Your task to perform on an android device: change notifications settings Image 0: 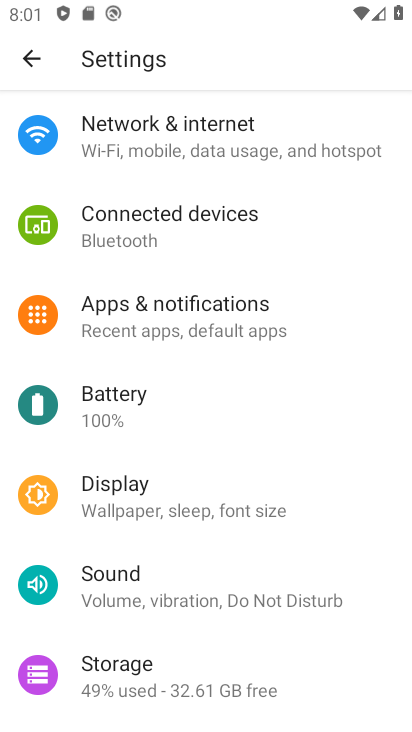
Step 0: click (181, 317)
Your task to perform on an android device: change notifications settings Image 1: 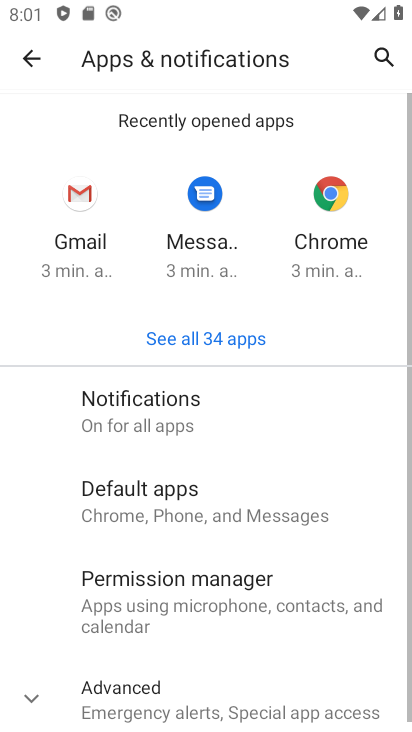
Step 1: click (166, 420)
Your task to perform on an android device: change notifications settings Image 2: 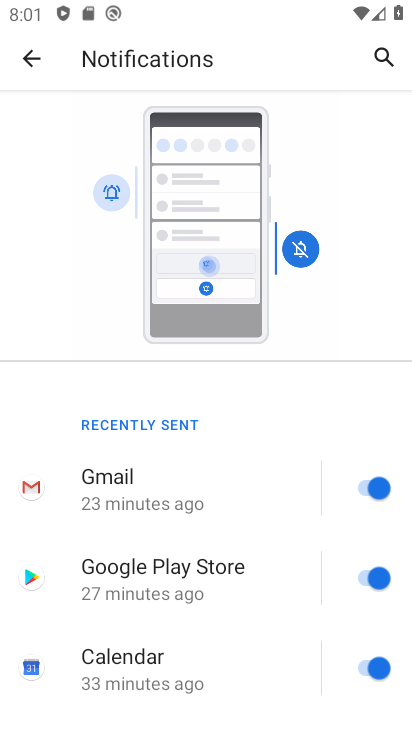
Step 2: click (365, 485)
Your task to perform on an android device: change notifications settings Image 3: 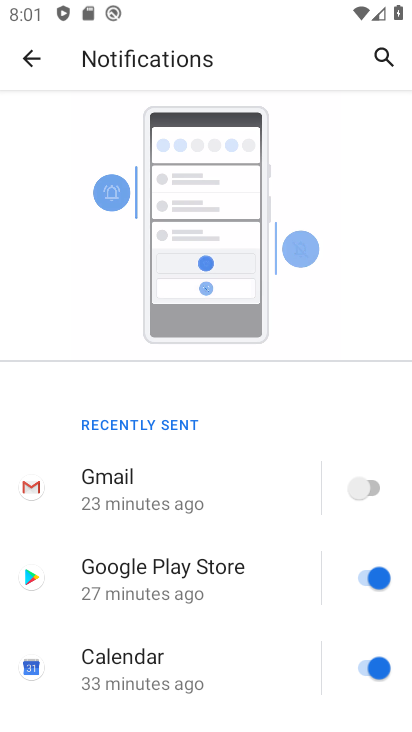
Step 3: click (367, 579)
Your task to perform on an android device: change notifications settings Image 4: 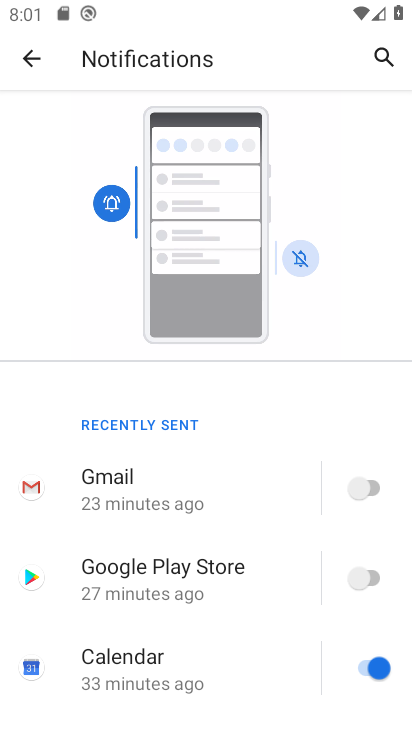
Step 4: click (367, 668)
Your task to perform on an android device: change notifications settings Image 5: 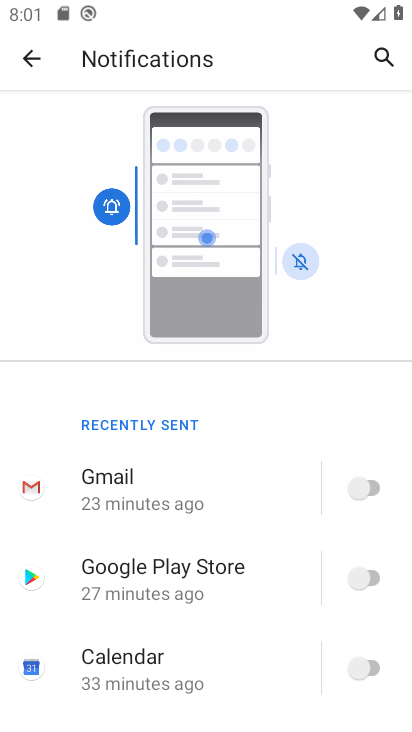
Step 5: drag from (268, 680) to (351, 156)
Your task to perform on an android device: change notifications settings Image 6: 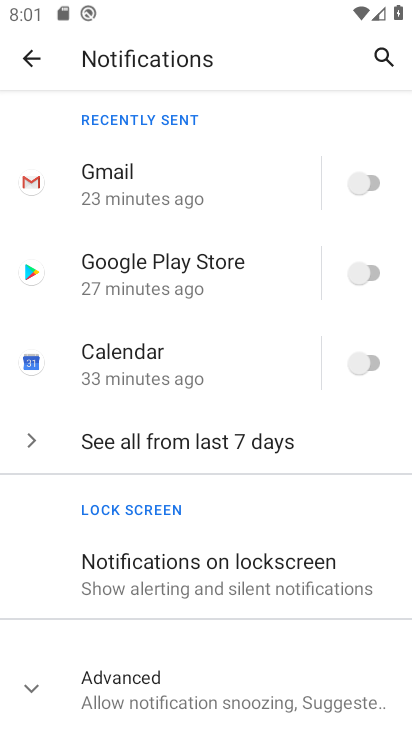
Step 6: click (220, 445)
Your task to perform on an android device: change notifications settings Image 7: 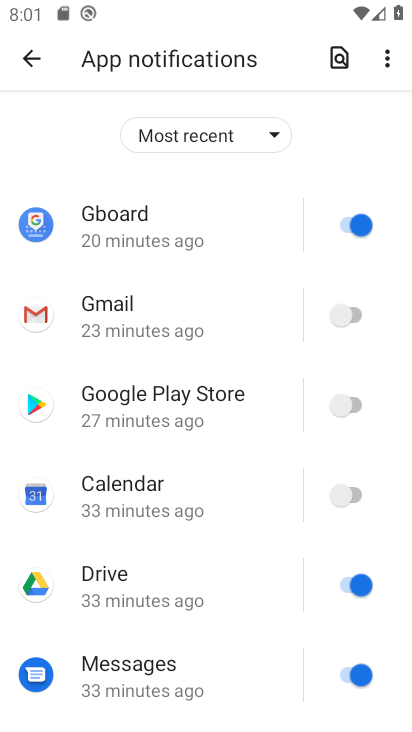
Step 7: click (343, 586)
Your task to perform on an android device: change notifications settings Image 8: 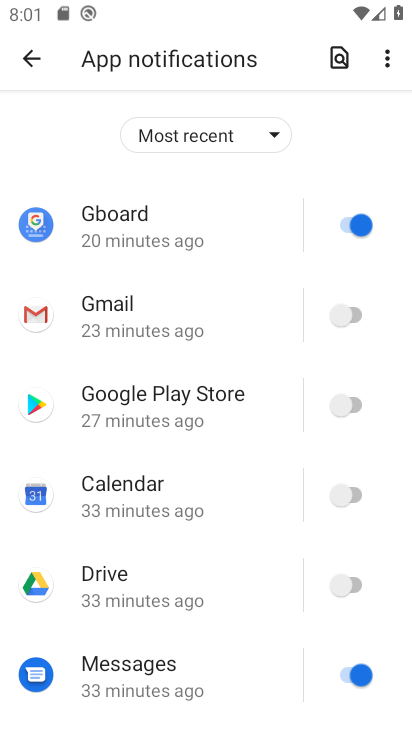
Step 8: click (349, 677)
Your task to perform on an android device: change notifications settings Image 9: 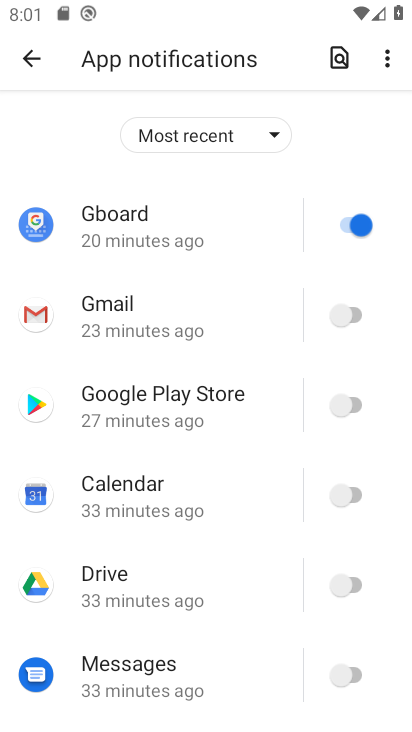
Step 9: click (352, 224)
Your task to perform on an android device: change notifications settings Image 10: 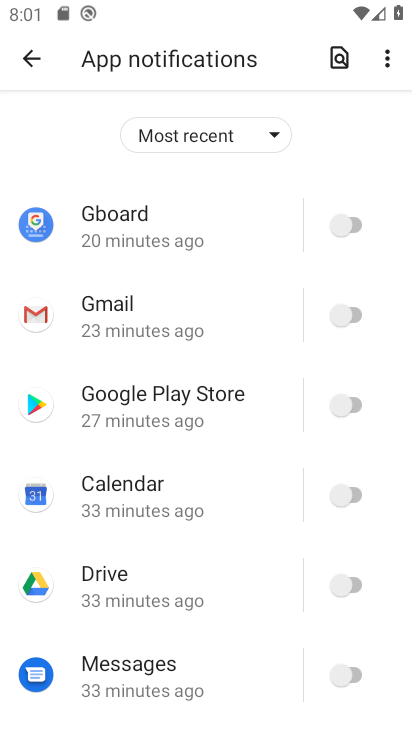
Step 10: drag from (257, 646) to (283, 346)
Your task to perform on an android device: change notifications settings Image 11: 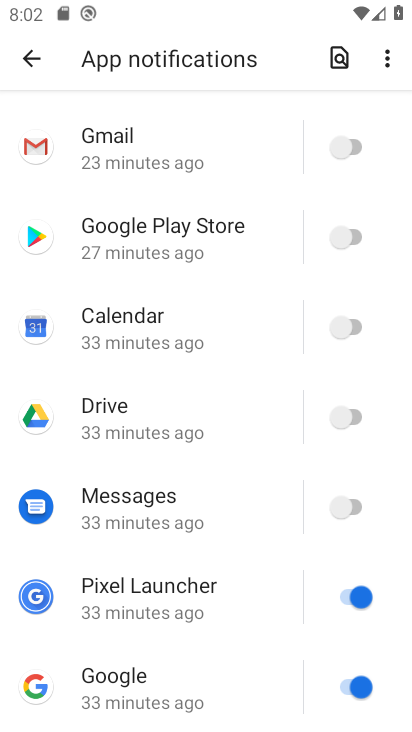
Step 11: click (349, 599)
Your task to perform on an android device: change notifications settings Image 12: 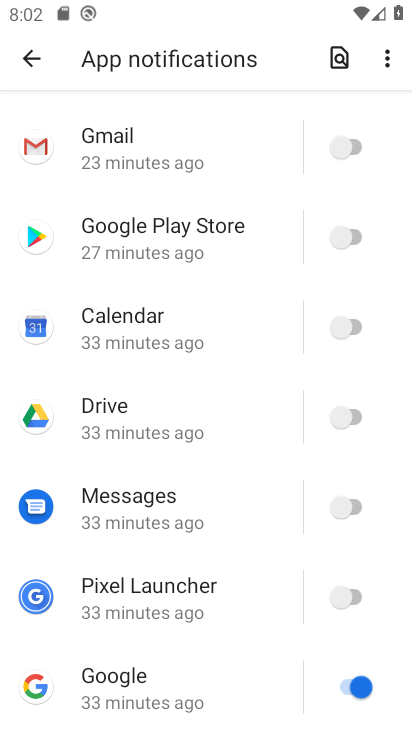
Step 12: click (348, 685)
Your task to perform on an android device: change notifications settings Image 13: 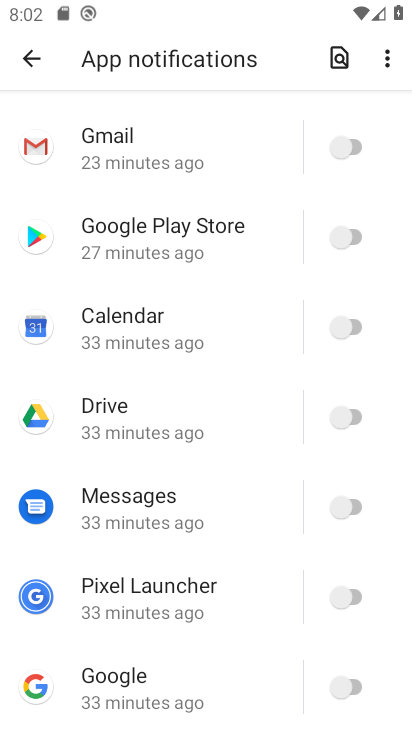
Step 13: task complete